Your task to perform on an android device: turn off improve location accuracy Image 0: 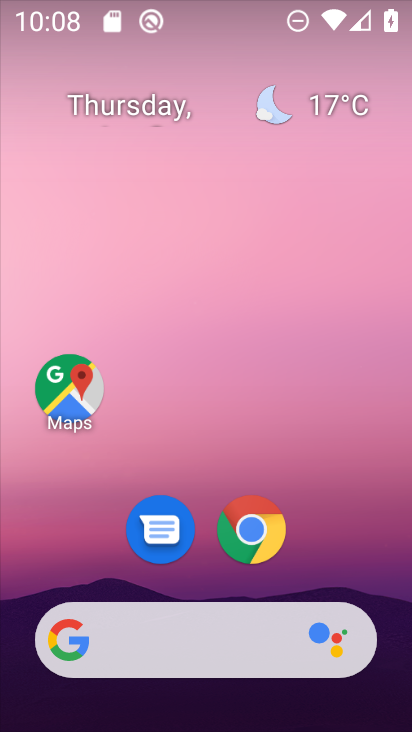
Step 0: drag from (392, 618) to (335, 130)
Your task to perform on an android device: turn off improve location accuracy Image 1: 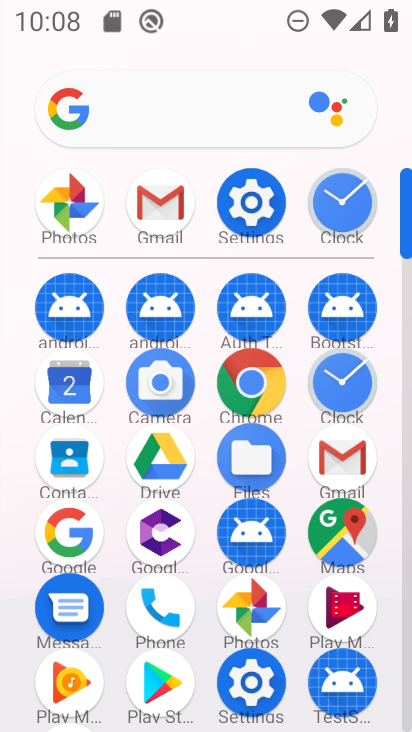
Step 1: click (251, 680)
Your task to perform on an android device: turn off improve location accuracy Image 2: 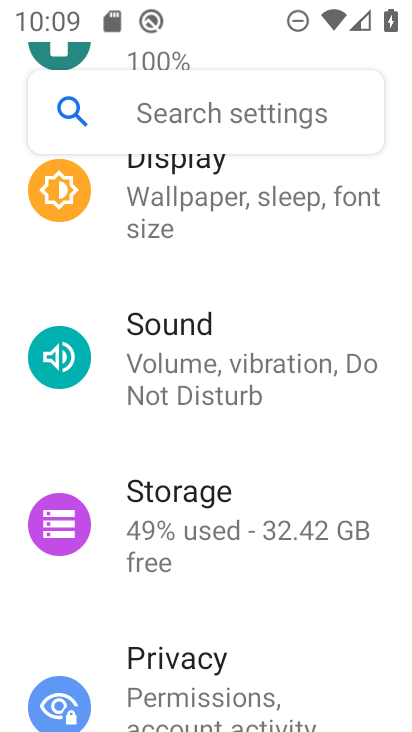
Step 2: drag from (321, 667) to (318, 341)
Your task to perform on an android device: turn off improve location accuracy Image 3: 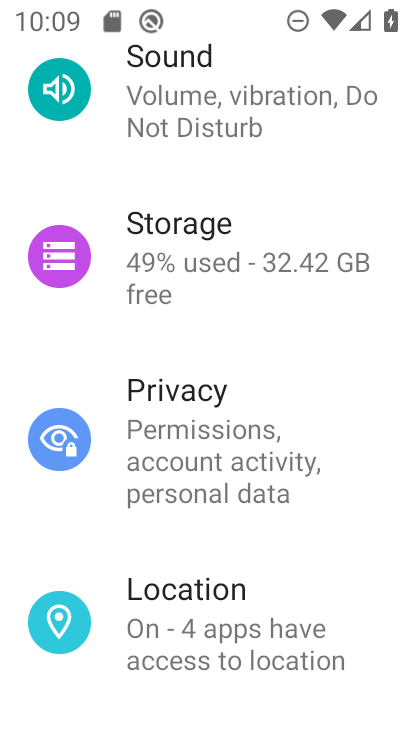
Step 3: drag from (376, 167) to (338, 605)
Your task to perform on an android device: turn off improve location accuracy Image 4: 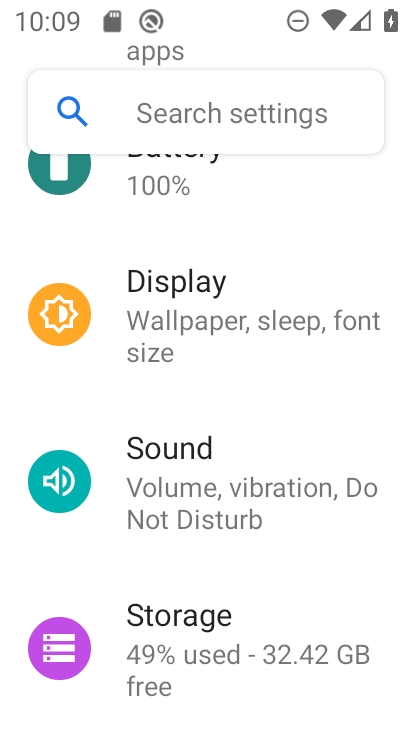
Step 4: drag from (323, 693) to (308, 164)
Your task to perform on an android device: turn off improve location accuracy Image 5: 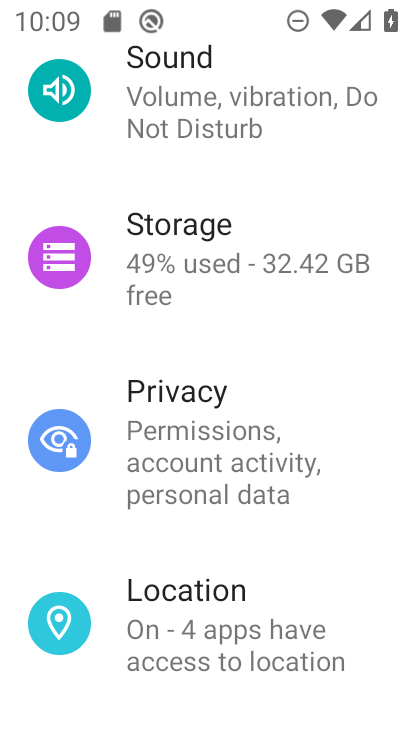
Step 5: click (190, 589)
Your task to perform on an android device: turn off improve location accuracy Image 6: 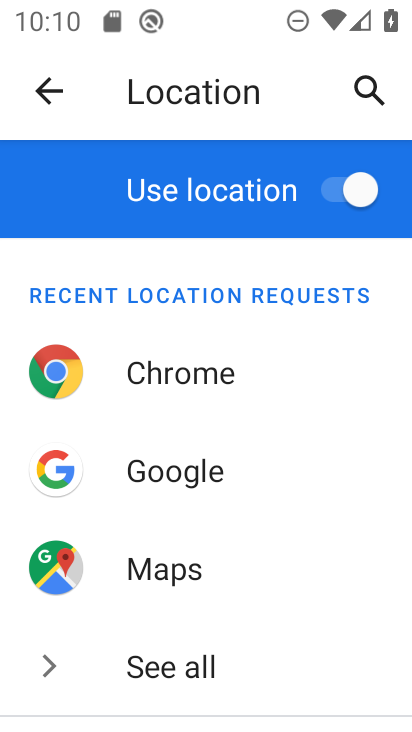
Step 6: drag from (309, 659) to (312, 288)
Your task to perform on an android device: turn off improve location accuracy Image 7: 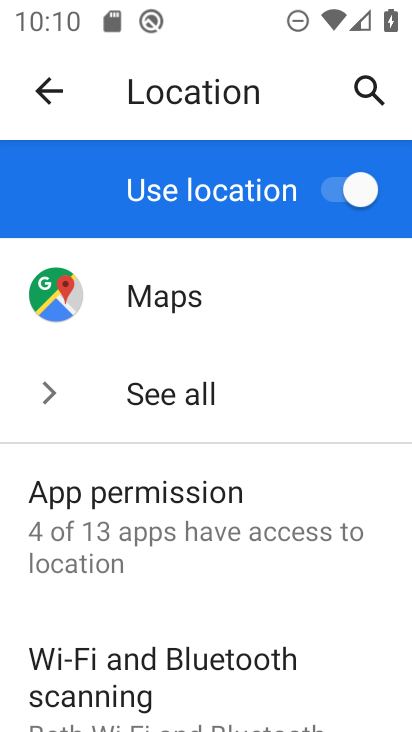
Step 7: drag from (284, 693) to (289, 353)
Your task to perform on an android device: turn off improve location accuracy Image 8: 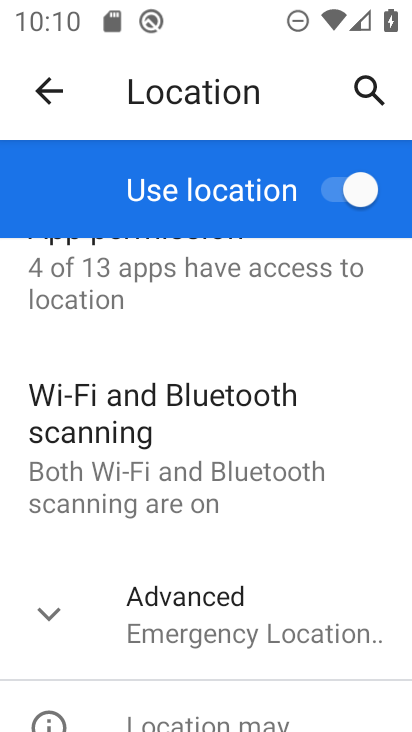
Step 8: click (31, 614)
Your task to perform on an android device: turn off improve location accuracy Image 9: 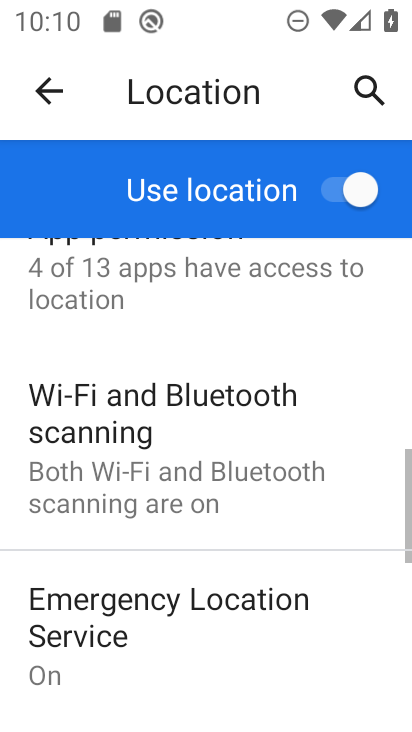
Step 9: drag from (261, 642) to (267, 385)
Your task to perform on an android device: turn off improve location accuracy Image 10: 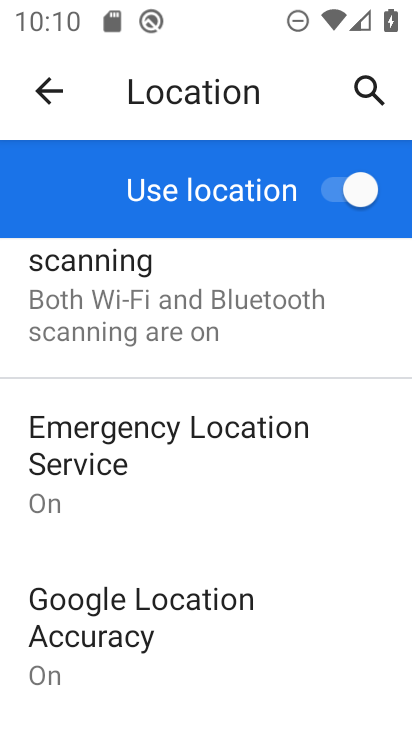
Step 10: drag from (261, 703) to (265, 472)
Your task to perform on an android device: turn off improve location accuracy Image 11: 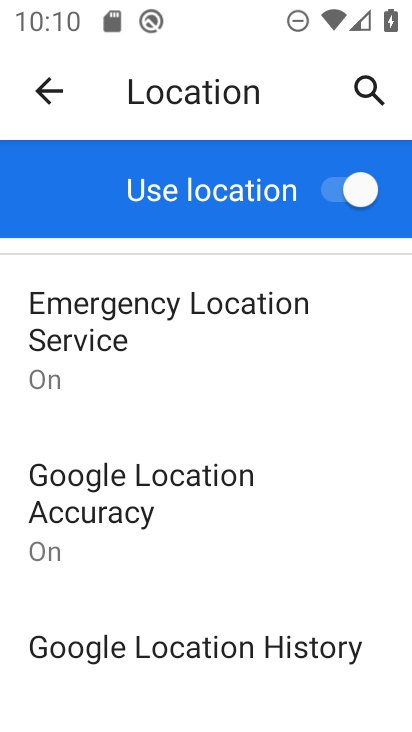
Step 11: drag from (233, 354) to (240, 580)
Your task to perform on an android device: turn off improve location accuracy Image 12: 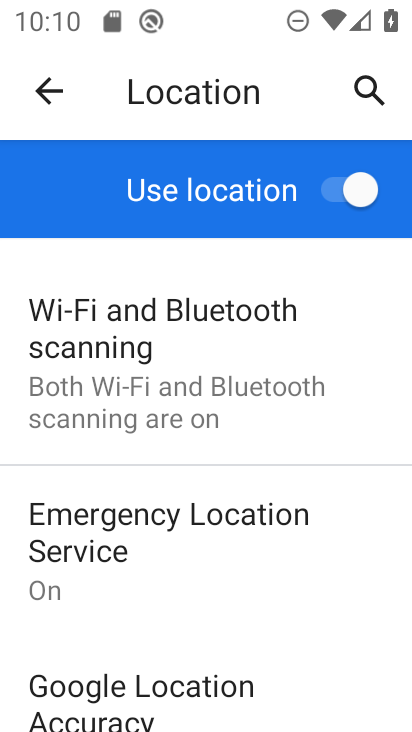
Step 12: click (161, 691)
Your task to perform on an android device: turn off improve location accuracy Image 13: 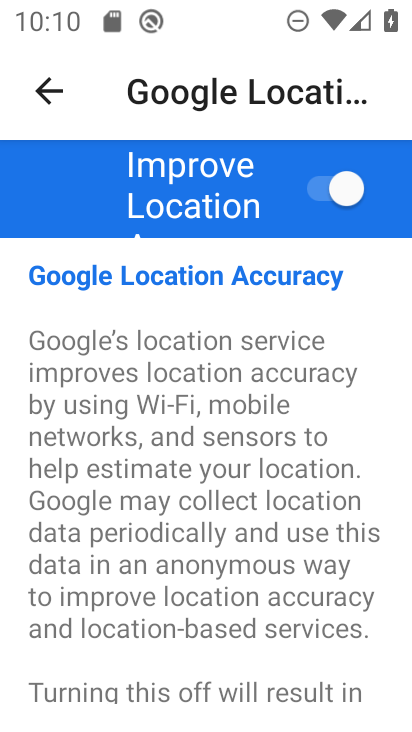
Step 13: click (323, 185)
Your task to perform on an android device: turn off improve location accuracy Image 14: 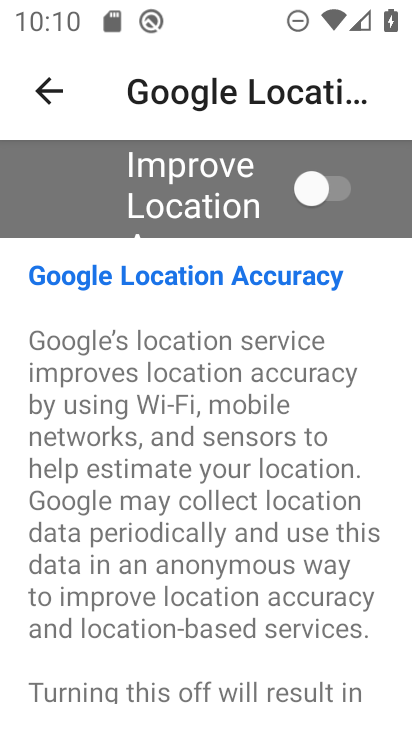
Step 14: task complete